Your task to perform on an android device: turn on wifi Image 0: 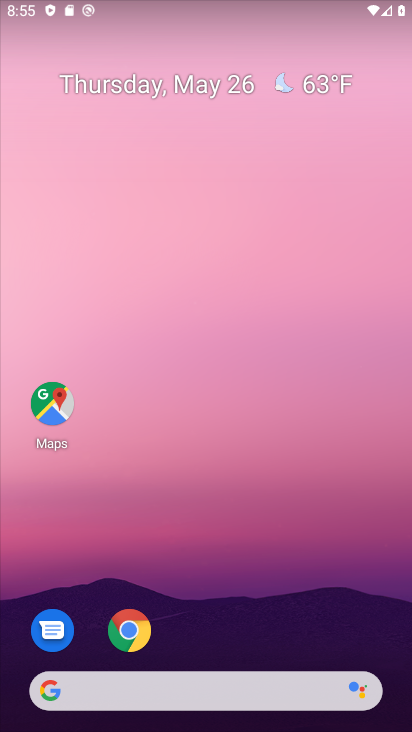
Step 0: drag from (224, 620) to (224, 106)
Your task to perform on an android device: turn on wifi Image 1: 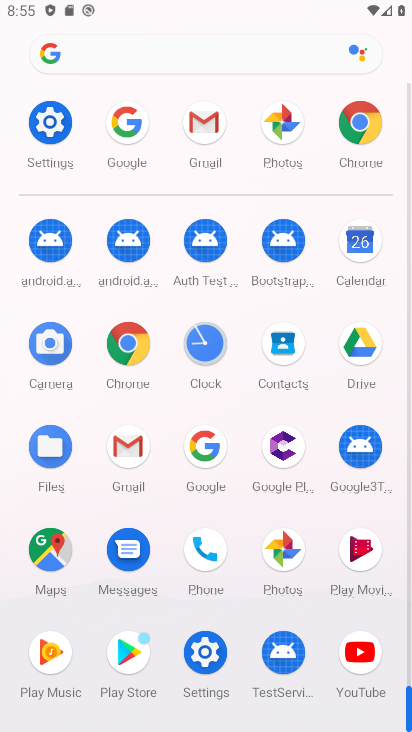
Step 1: click (43, 137)
Your task to perform on an android device: turn on wifi Image 2: 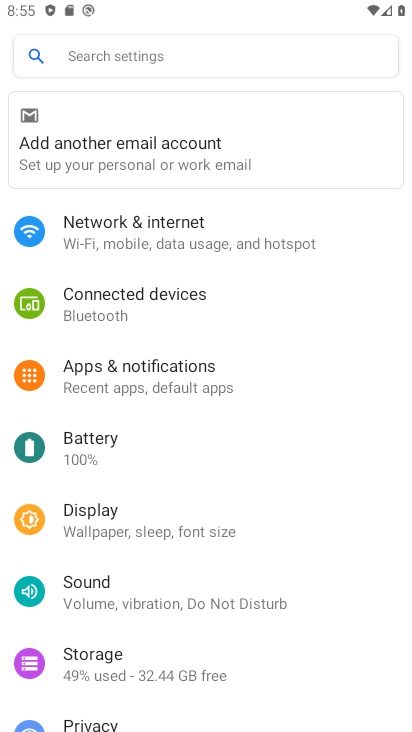
Step 2: click (123, 227)
Your task to perform on an android device: turn on wifi Image 3: 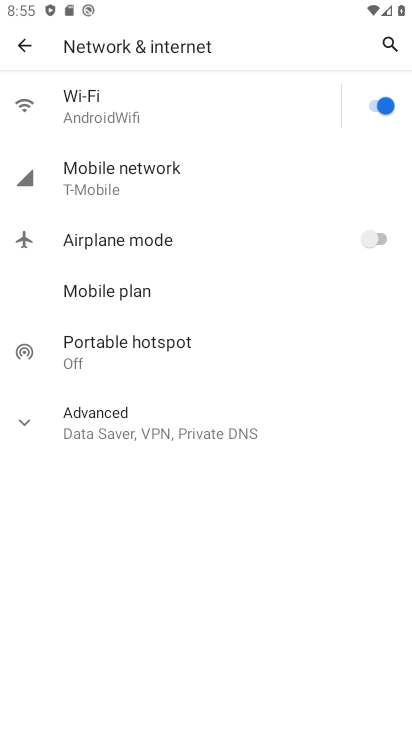
Step 3: task complete